Your task to perform on an android device: Go to CNN.com Image 0: 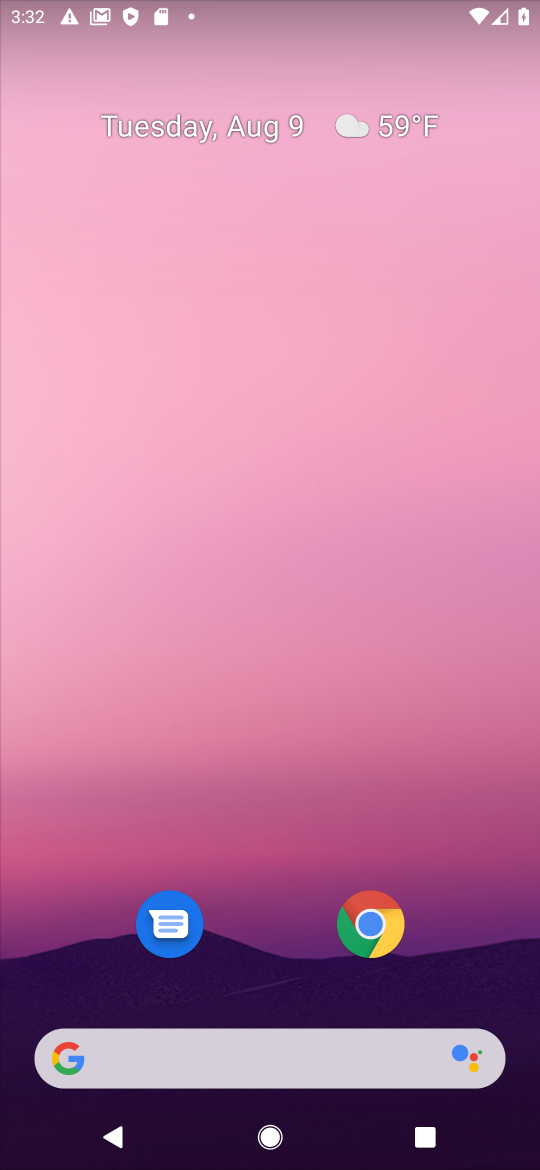
Step 0: drag from (369, 877) to (273, 298)
Your task to perform on an android device: Go to CNN.com Image 1: 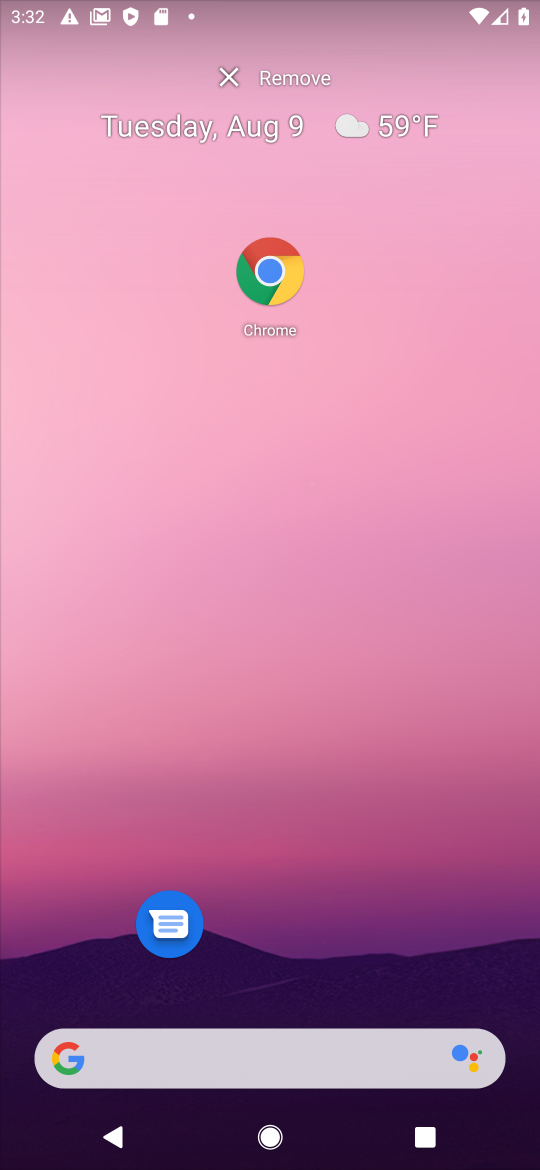
Step 1: drag from (329, 441) to (300, 42)
Your task to perform on an android device: Go to CNN.com Image 2: 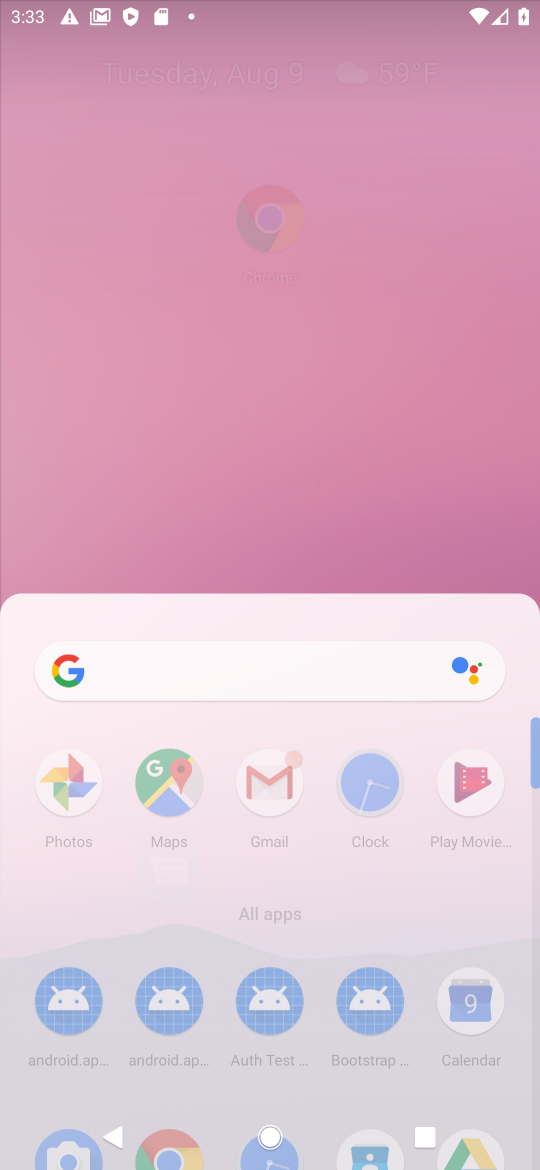
Step 2: drag from (409, 264) to (409, 85)
Your task to perform on an android device: Go to CNN.com Image 3: 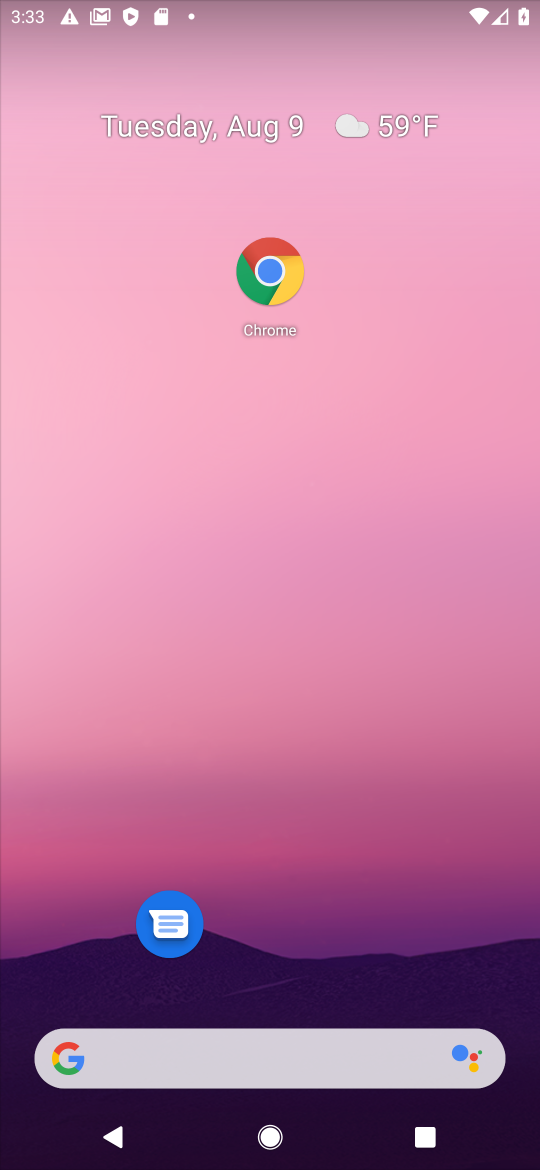
Step 3: drag from (263, 358) to (240, 275)
Your task to perform on an android device: Go to CNN.com Image 4: 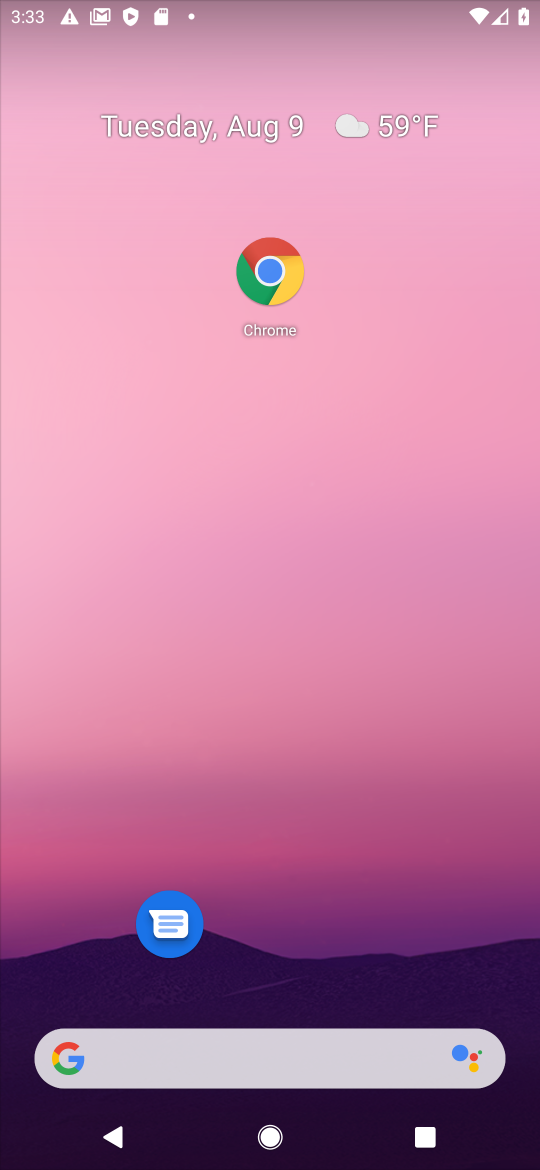
Step 4: drag from (316, 764) to (337, 141)
Your task to perform on an android device: Go to CNN.com Image 5: 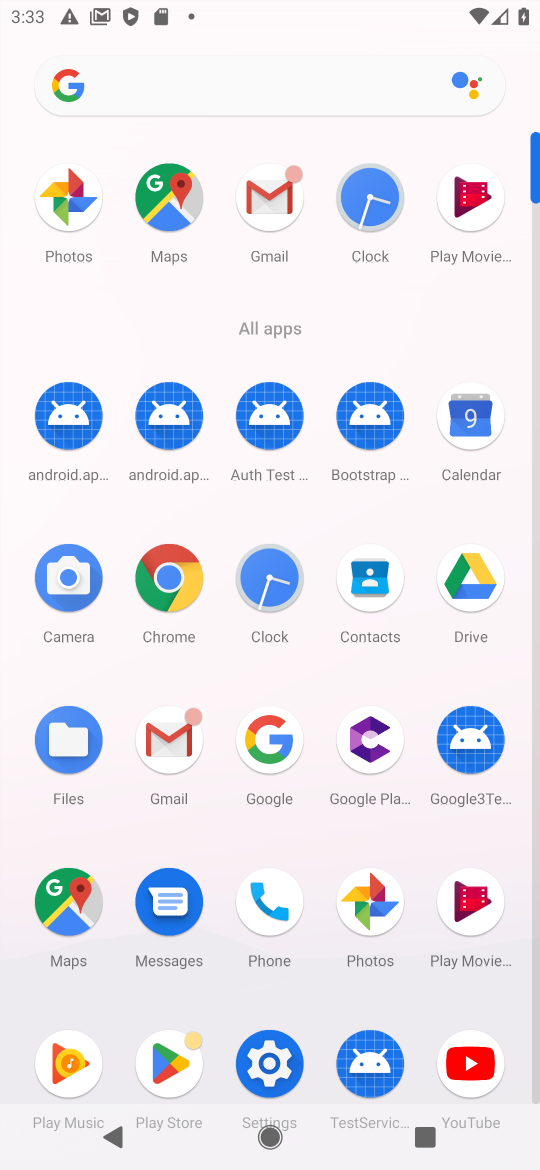
Step 5: click (179, 547)
Your task to perform on an android device: Go to CNN.com Image 6: 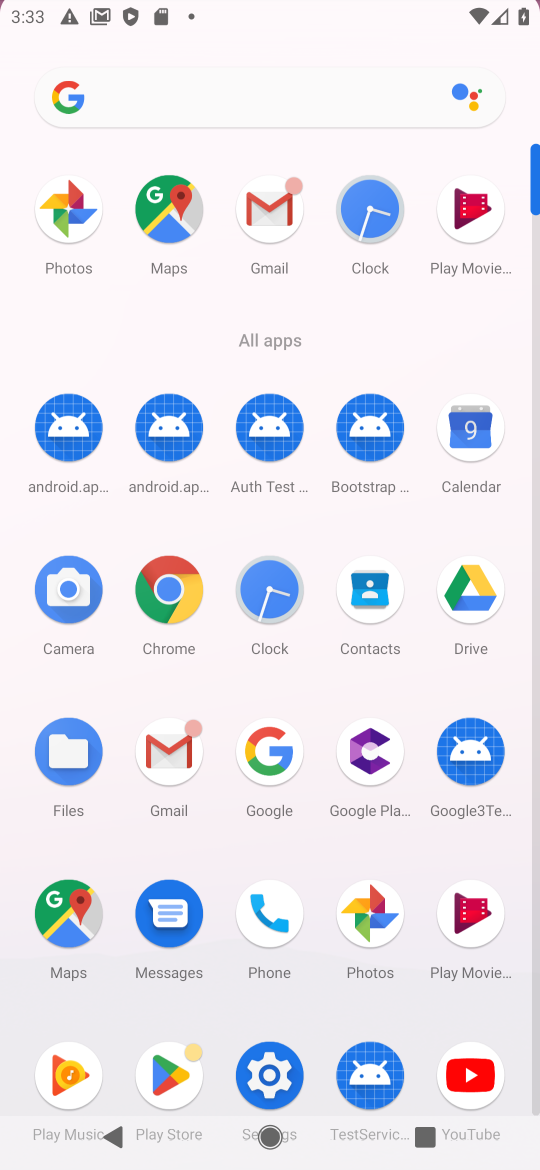
Step 6: click (183, 577)
Your task to perform on an android device: Go to CNN.com Image 7: 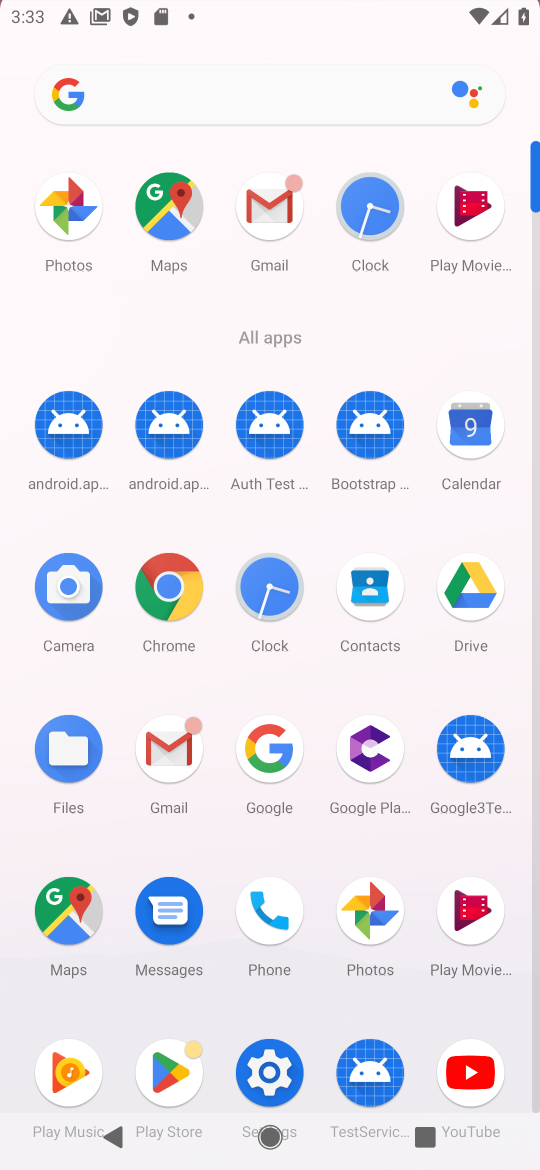
Step 7: click (163, 587)
Your task to perform on an android device: Go to CNN.com Image 8: 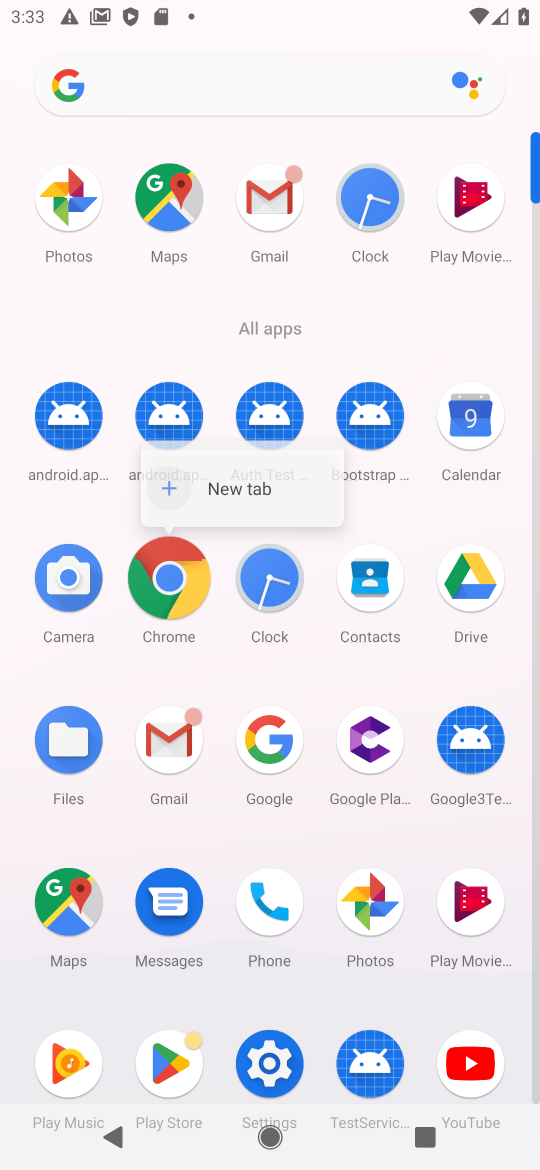
Step 8: click (164, 587)
Your task to perform on an android device: Go to CNN.com Image 9: 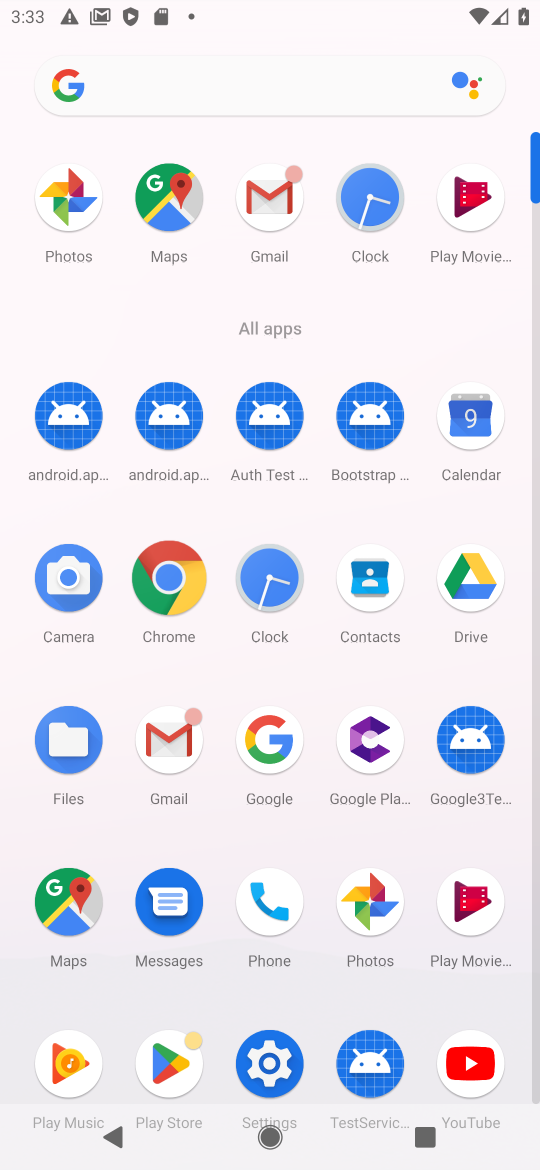
Step 9: click (174, 572)
Your task to perform on an android device: Go to CNN.com Image 10: 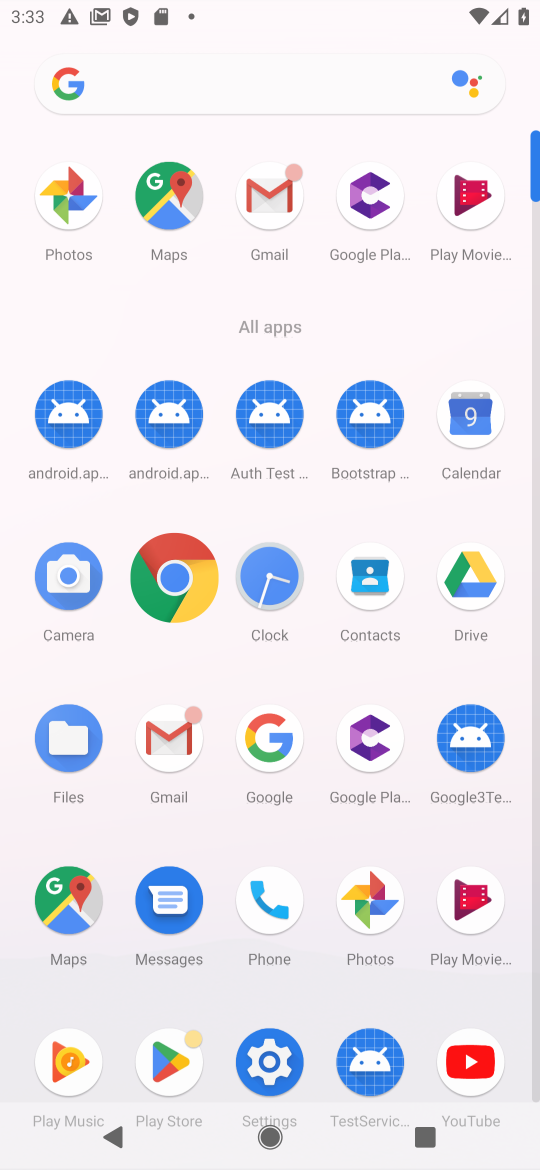
Step 10: click (167, 572)
Your task to perform on an android device: Go to CNN.com Image 11: 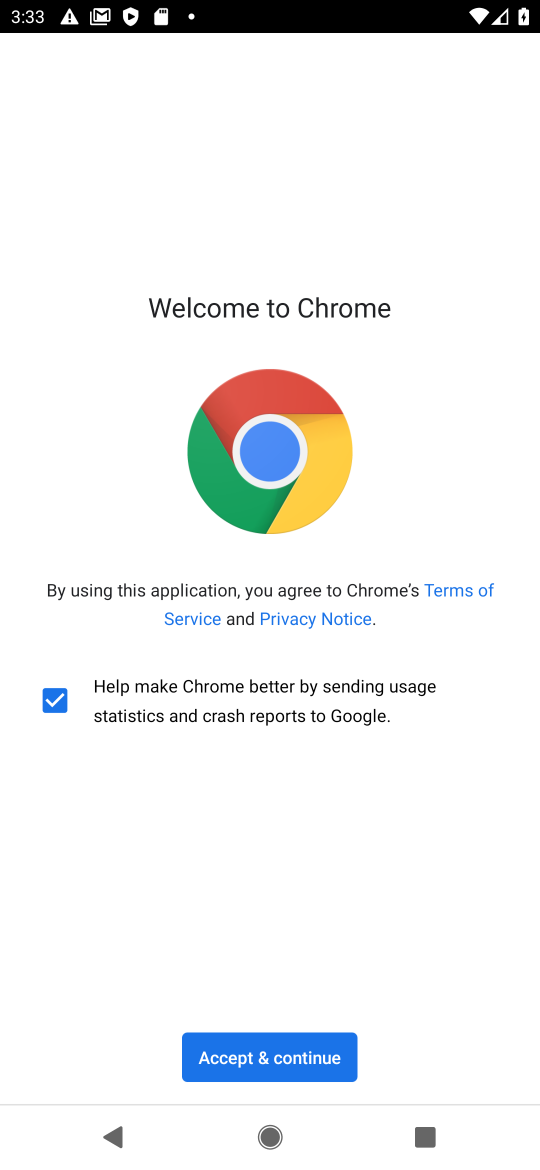
Step 11: click (295, 1039)
Your task to perform on an android device: Go to CNN.com Image 12: 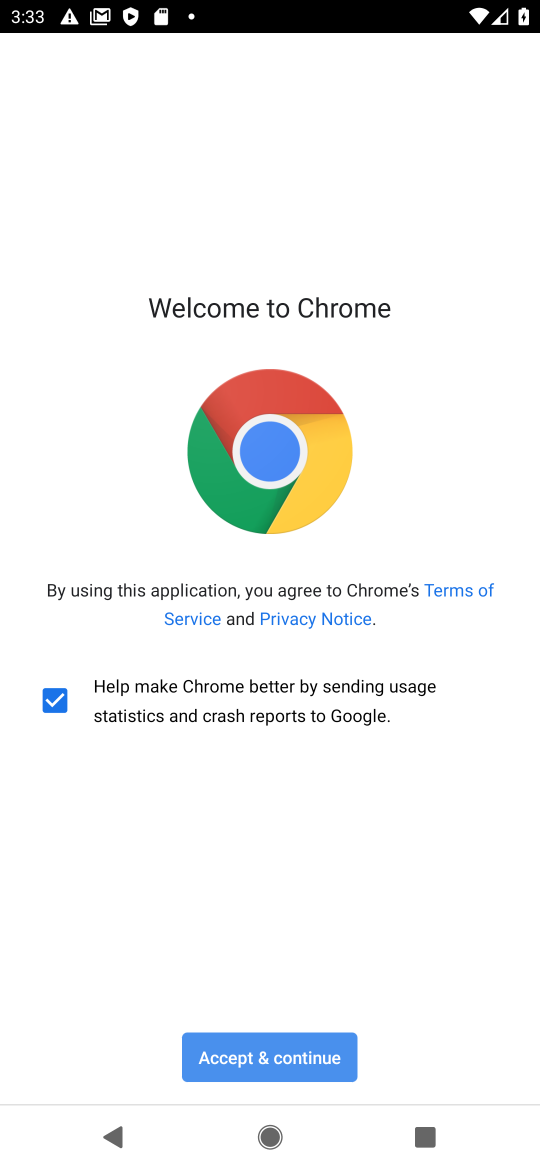
Step 12: click (305, 1063)
Your task to perform on an android device: Go to CNN.com Image 13: 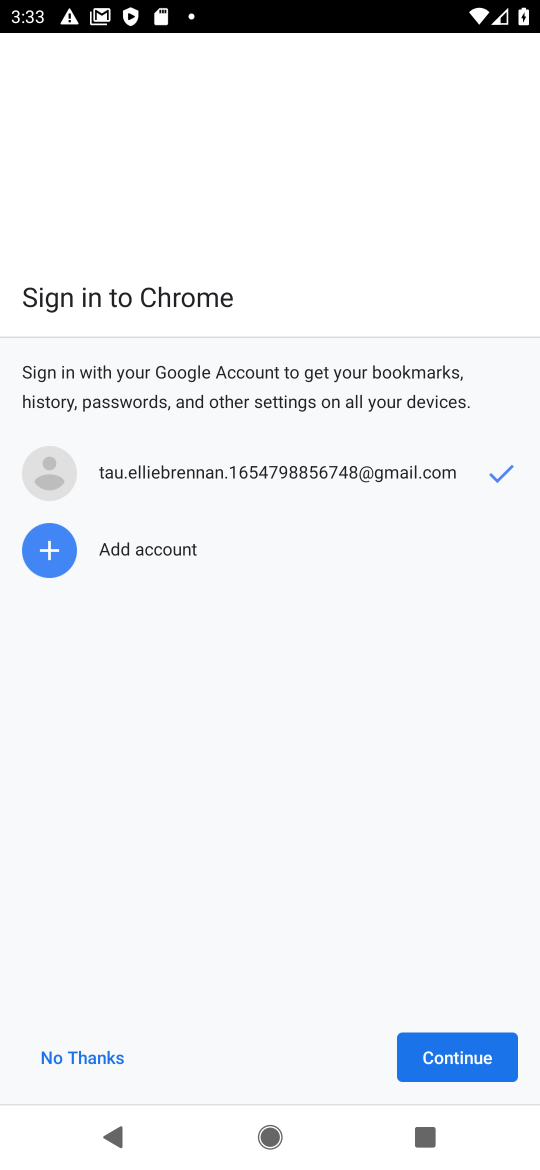
Step 13: click (316, 1067)
Your task to perform on an android device: Go to CNN.com Image 14: 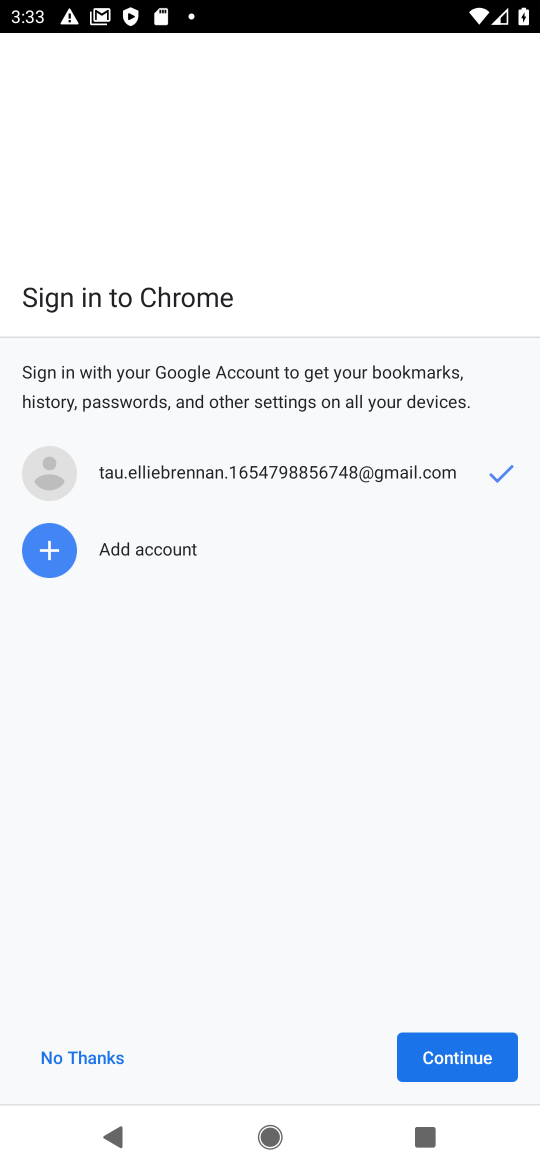
Step 14: click (91, 1043)
Your task to perform on an android device: Go to CNN.com Image 15: 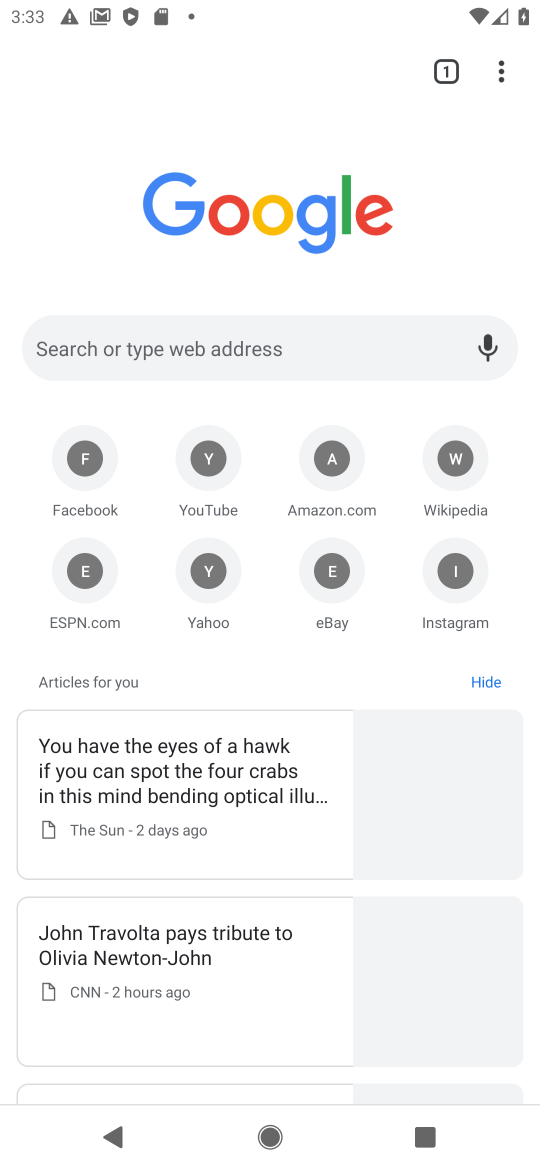
Step 15: click (162, 329)
Your task to perform on an android device: Go to CNN.com Image 16: 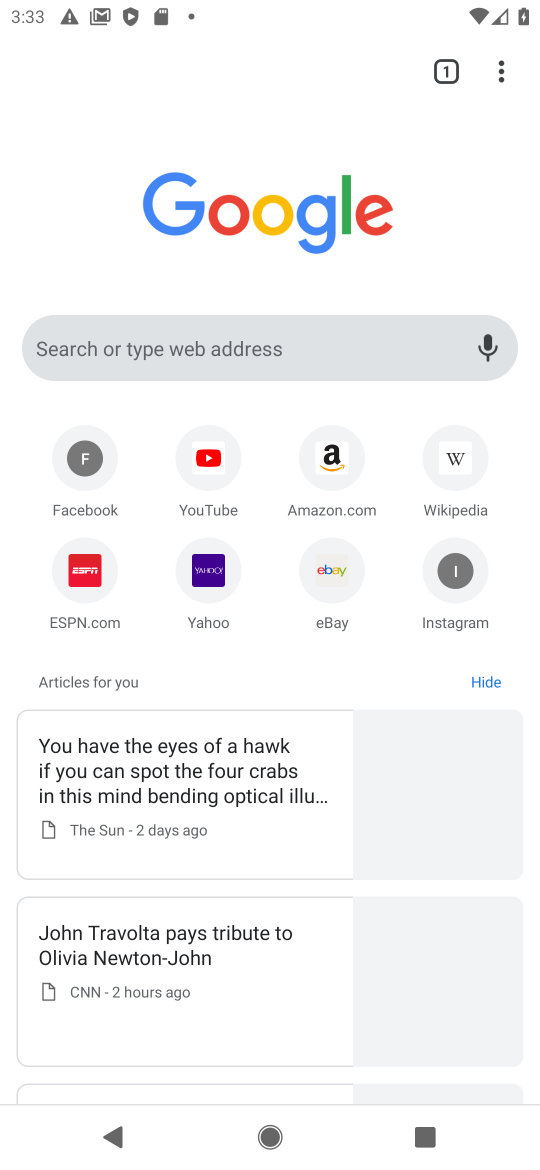
Step 16: click (160, 347)
Your task to perform on an android device: Go to CNN.com Image 17: 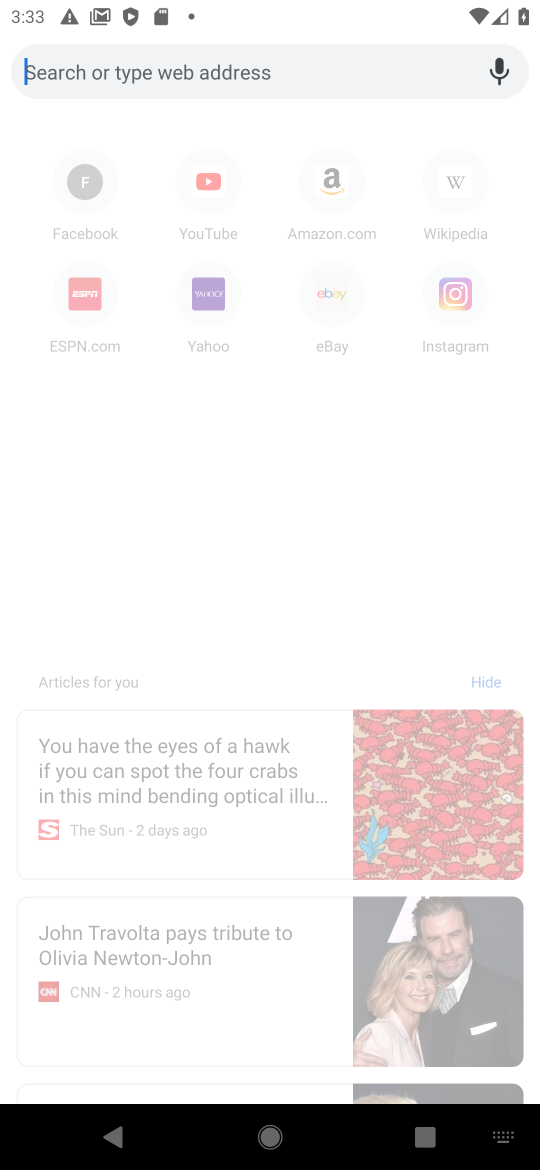
Step 17: type "CNN.com"
Your task to perform on an android device: Go to CNN.com Image 18: 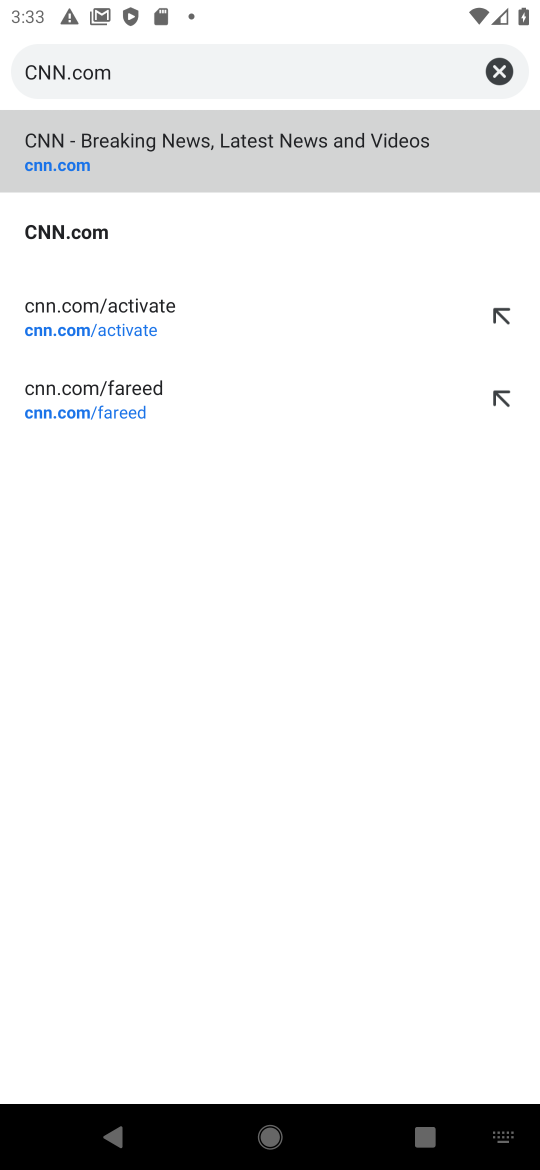
Step 18: click (59, 151)
Your task to perform on an android device: Go to CNN.com Image 19: 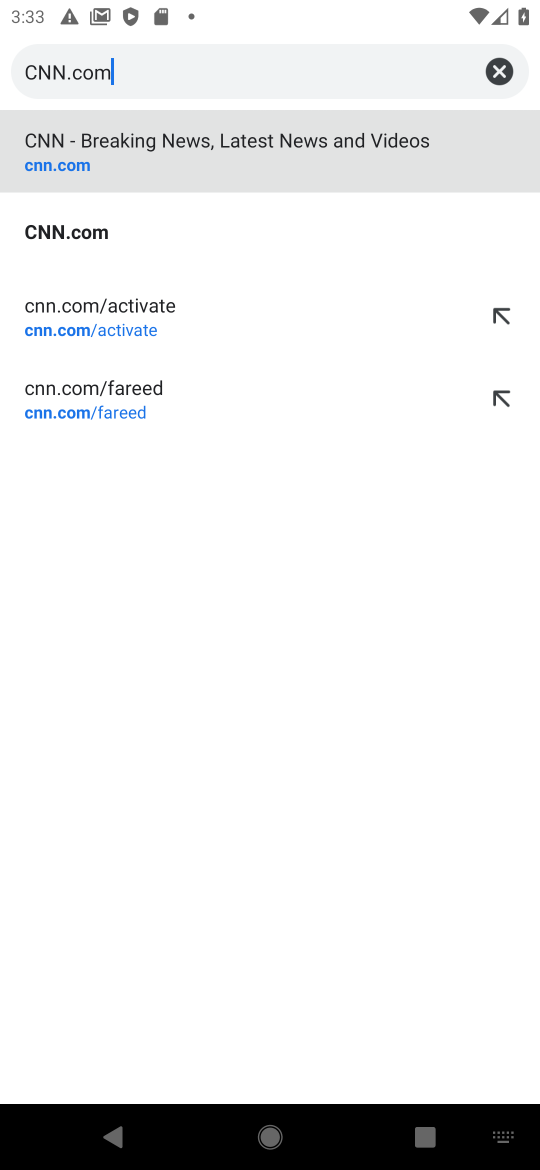
Step 19: click (67, 147)
Your task to perform on an android device: Go to CNN.com Image 20: 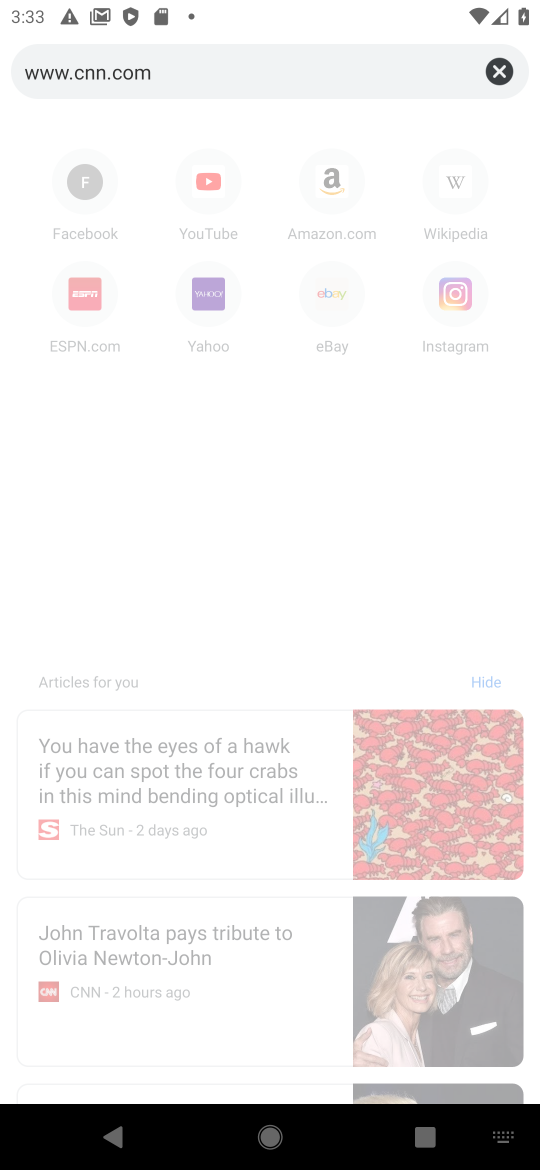
Step 20: click (28, 160)
Your task to perform on an android device: Go to CNN.com Image 21: 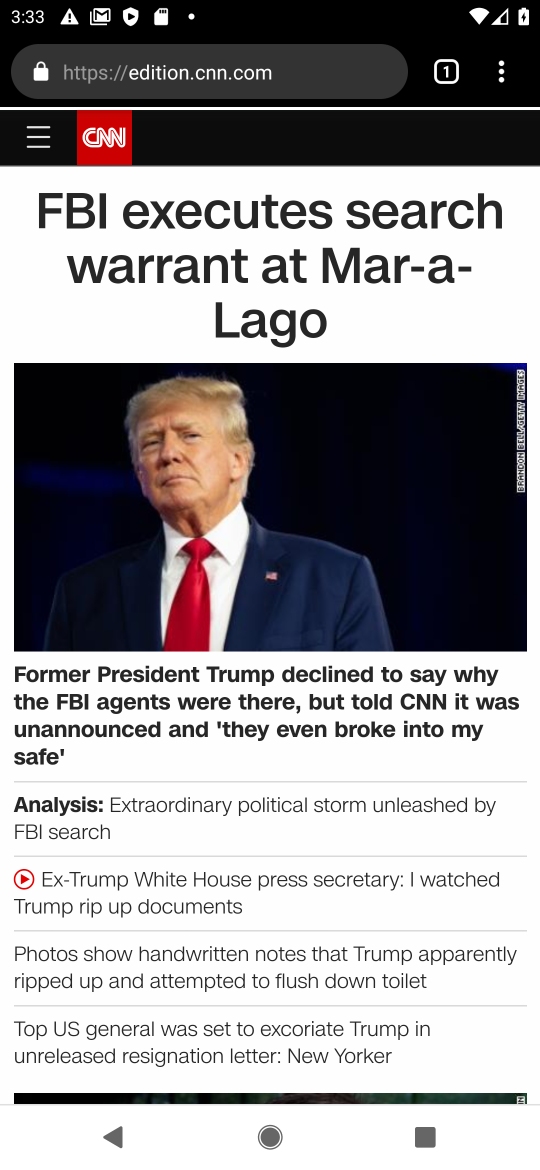
Step 21: task complete